Your task to perform on an android device: set default search engine in the chrome app Image 0: 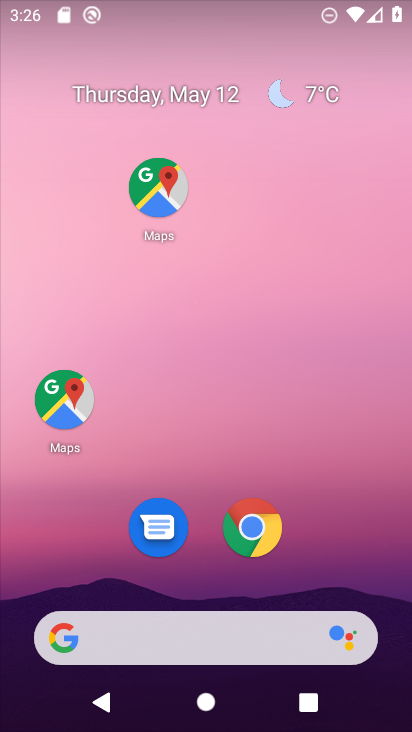
Step 0: click (251, 543)
Your task to perform on an android device: set default search engine in the chrome app Image 1: 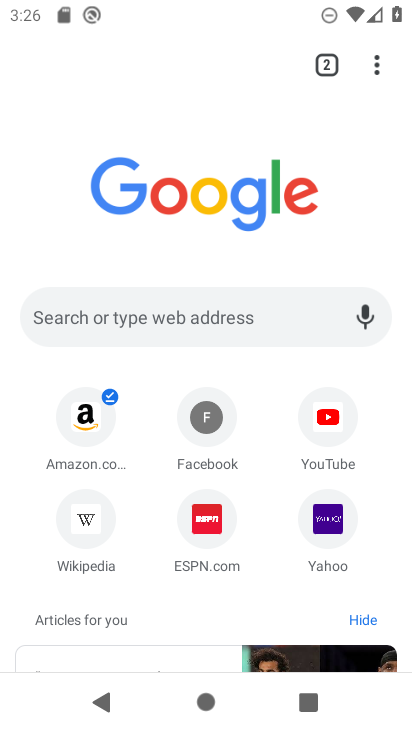
Step 1: click (365, 81)
Your task to perform on an android device: set default search engine in the chrome app Image 2: 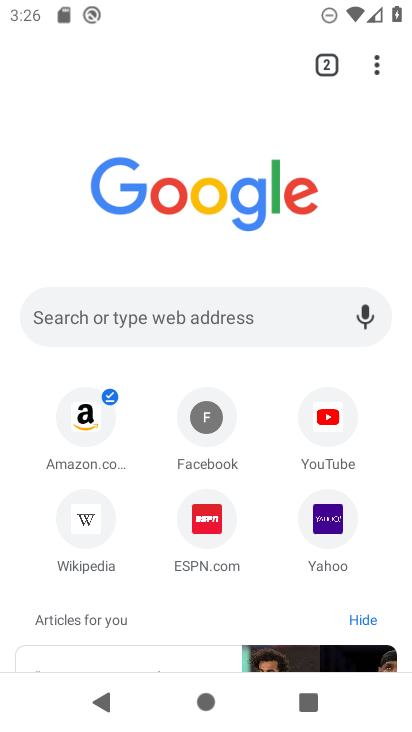
Step 2: drag from (381, 67) to (152, 539)
Your task to perform on an android device: set default search engine in the chrome app Image 3: 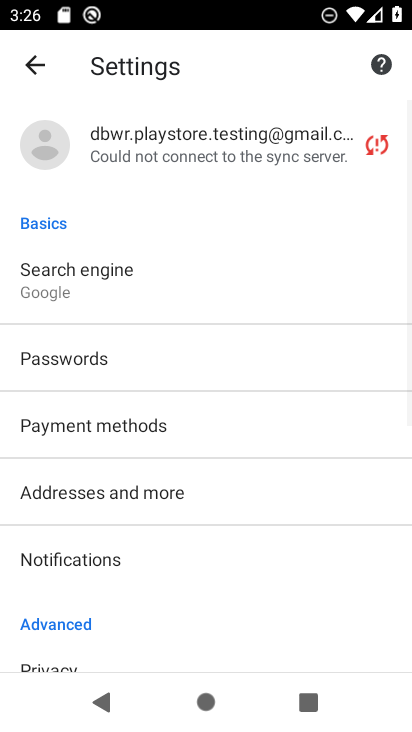
Step 3: click (84, 289)
Your task to perform on an android device: set default search engine in the chrome app Image 4: 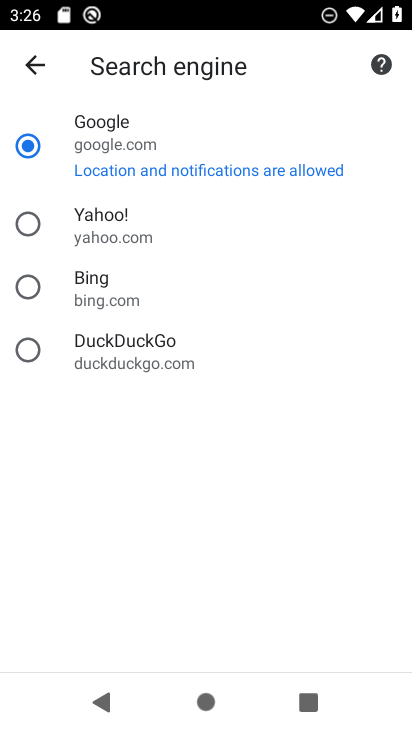
Step 4: task complete